Your task to perform on an android device: check data usage Image 0: 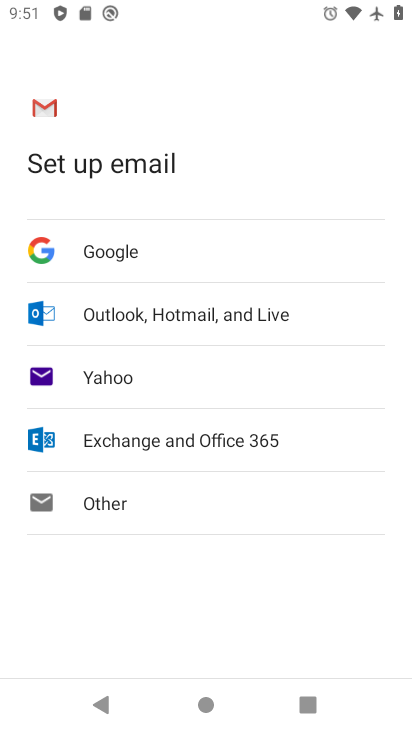
Step 0: press back button
Your task to perform on an android device: check data usage Image 1: 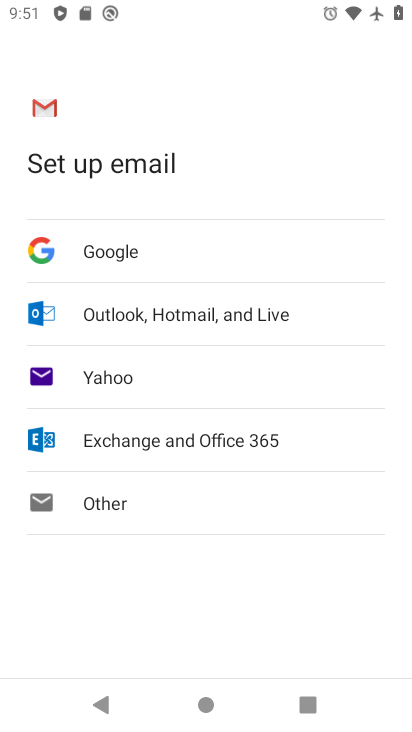
Step 1: press home button
Your task to perform on an android device: check data usage Image 2: 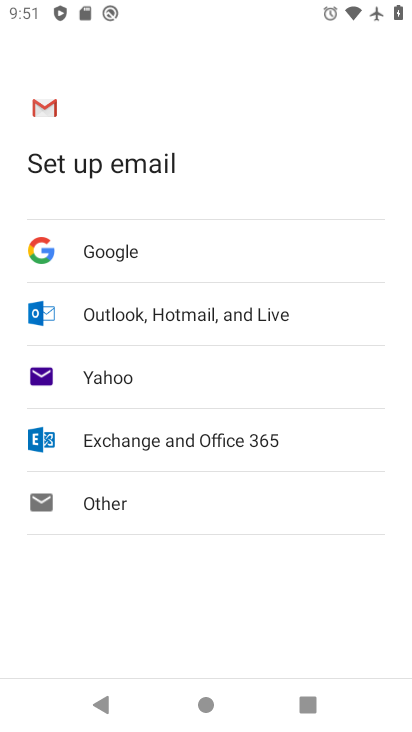
Step 2: press home button
Your task to perform on an android device: check data usage Image 3: 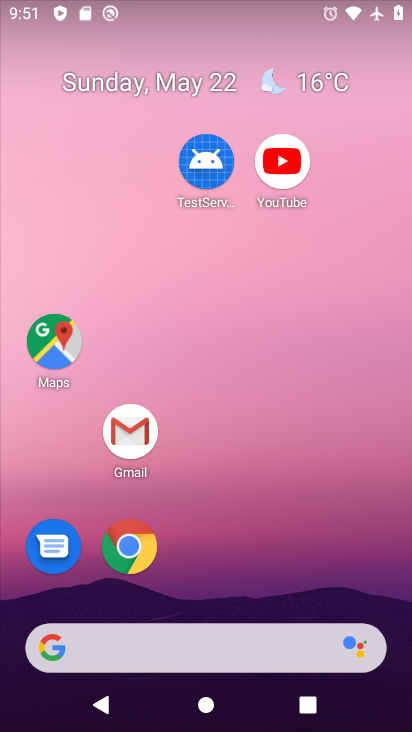
Step 3: drag from (241, 664) to (125, 154)
Your task to perform on an android device: check data usage Image 4: 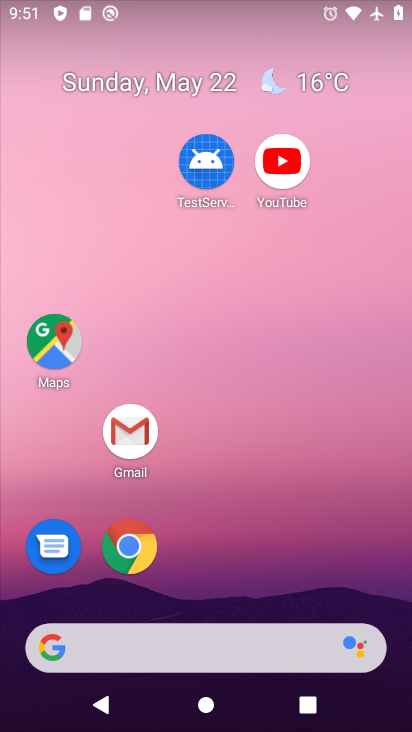
Step 4: drag from (262, 675) to (169, 26)
Your task to perform on an android device: check data usage Image 5: 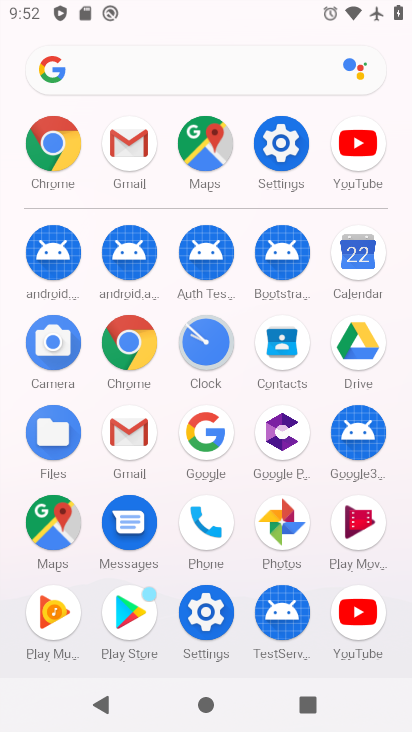
Step 5: click (282, 150)
Your task to perform on an android device: check data usage Image 6: 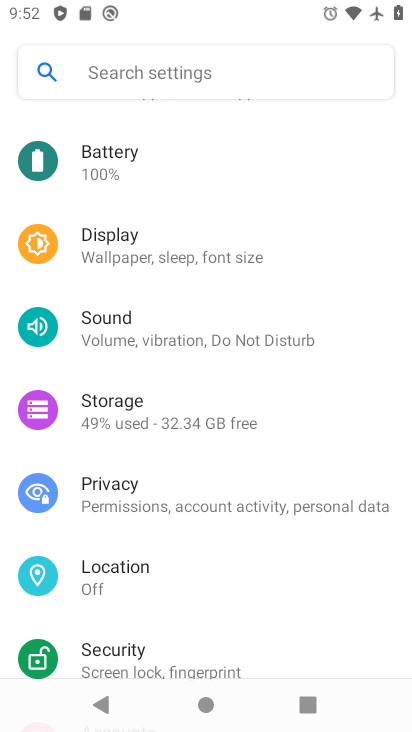
Step 6: click (151, 533)
Your task to perform on an android device: check data usage Image 7: 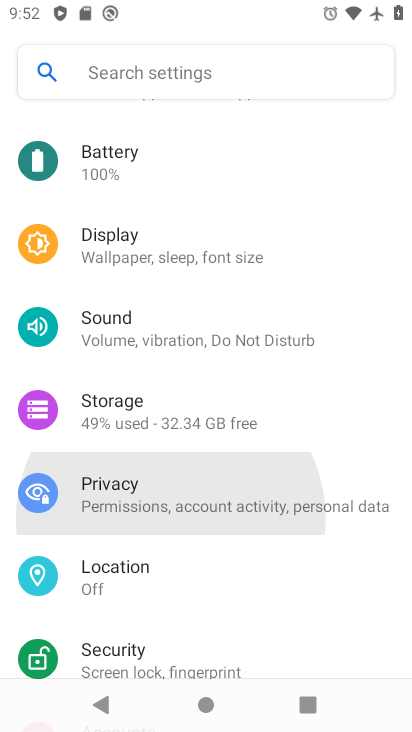
Step 7: click (210, 610)
Your task to perform on an android device: check data usage Image 8: 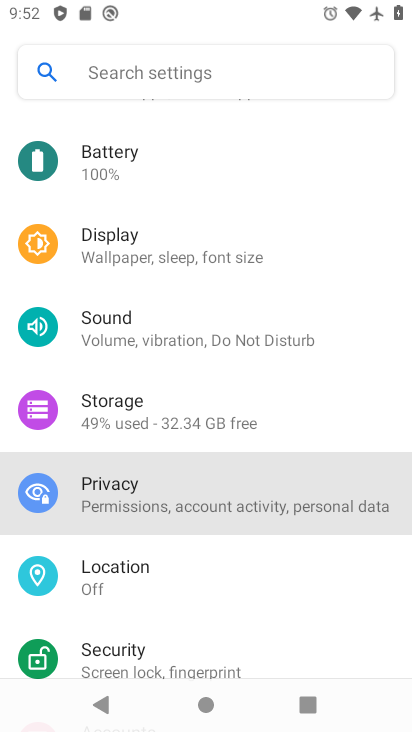
Step 8: drag from (144, 243) to (207, 619)
Your task to perform on an android device: check data usage Image 9: 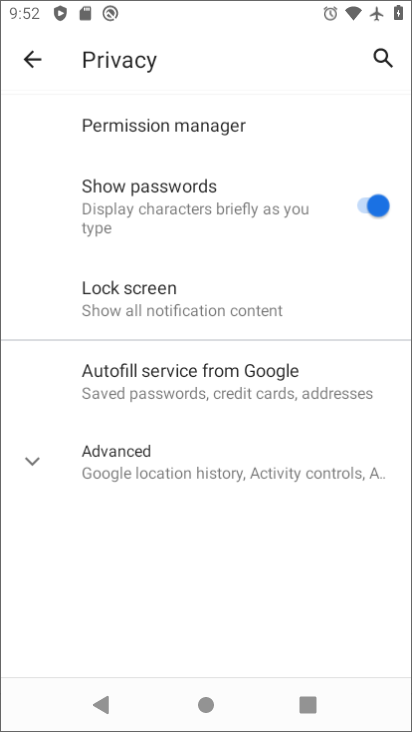
Step 9: drag from (166, 236) to (234, 629)
Your task to perform on an android device: check data usage Image 10: 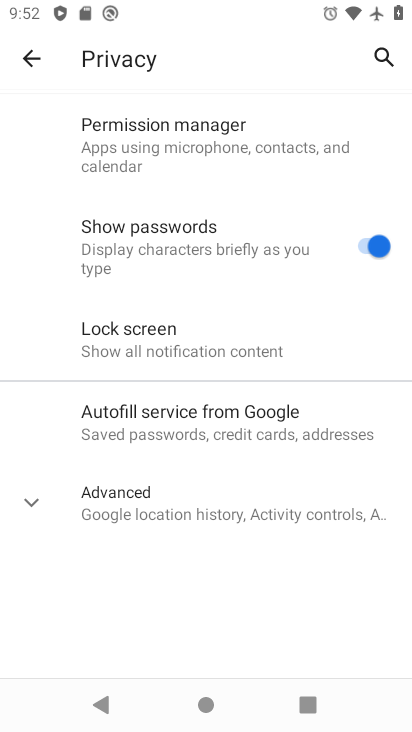
Step 10: click (20, 56)
Your task to perform on an android device: check data usage Image 11: 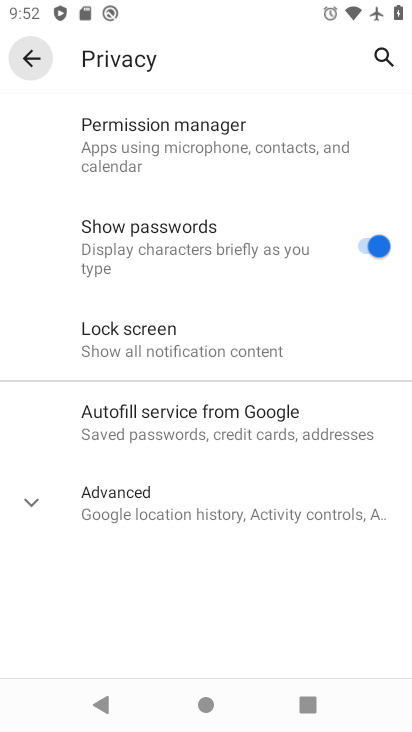
Step 11: click (22, 53)
Your task to perform on an android device: check data usage Image 12: 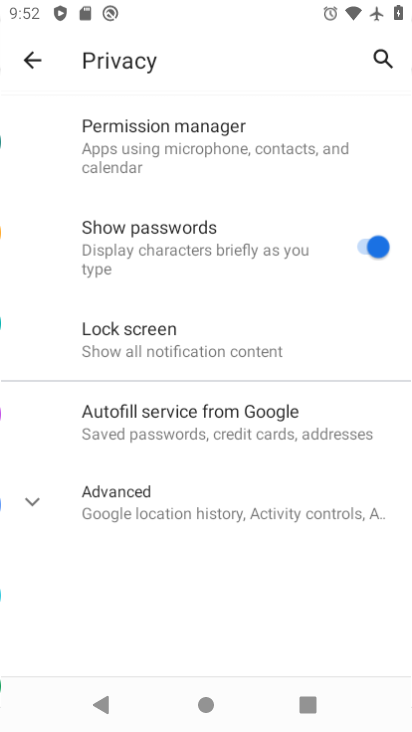
Step 12: click (28, 52)
Your task to perform on an android device: check data usage Image 13: 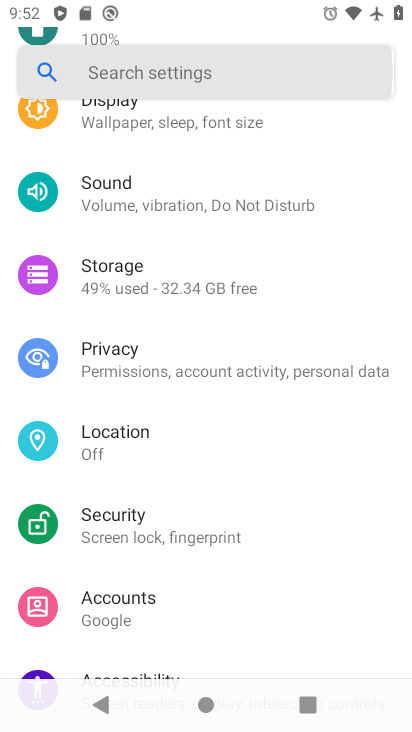
Step 13: click (28, 52)
Your task to perform on an android device: check data usage Image 14: 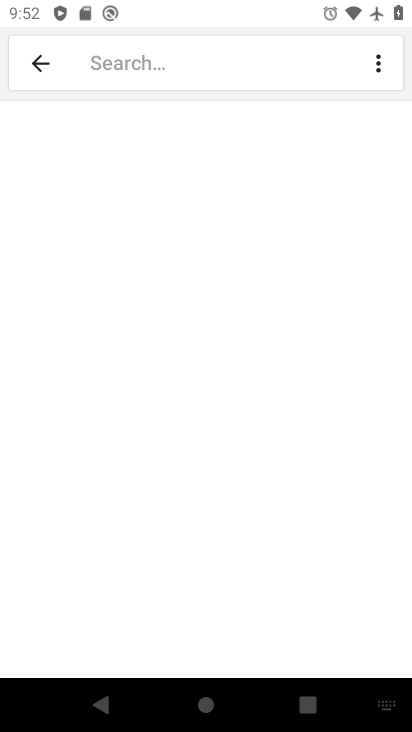
Step 14: click (41, 68)
Your task to perform on an android device: check data usage Image 15: 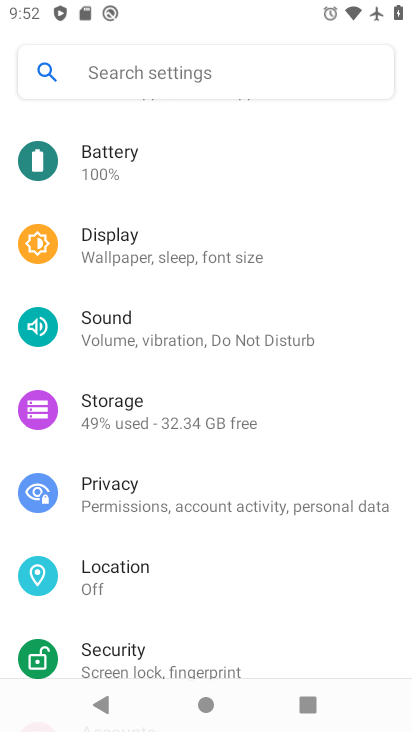
Step 15: drag from (110, 200) to (148, 608)
Your task to perform on an android device: check data usage Image 16: 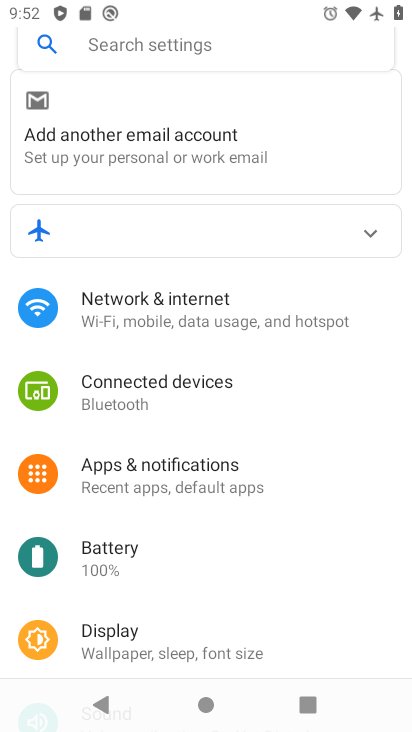
Step 16: drag from (144, 244) to (209, 636)
Your task to perform on an android device: check data usage Image 17: 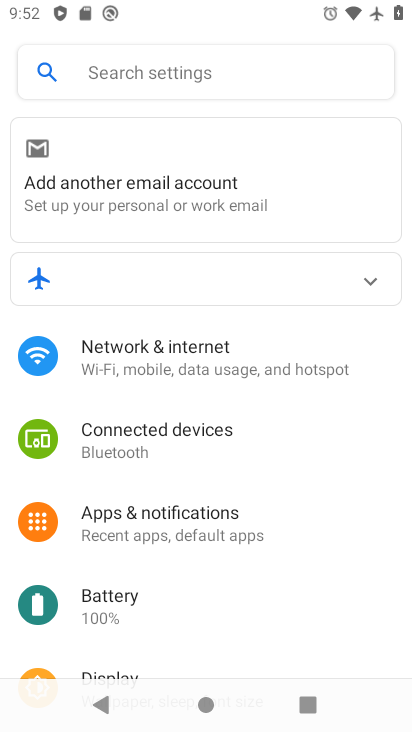
Step 17: click (191, 354)
Your task to perform on an android device: check data usage Image 18: 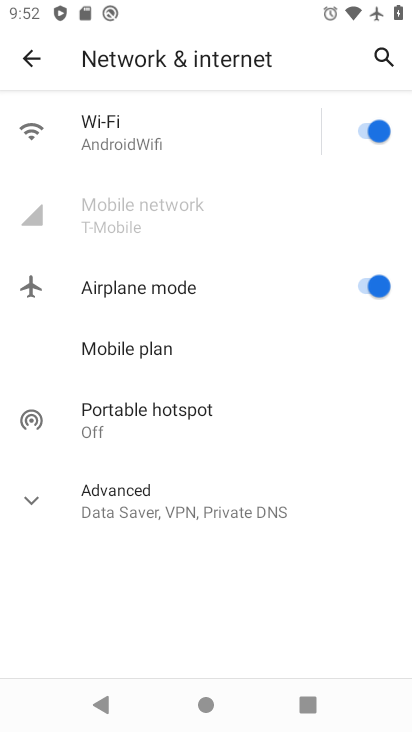
Step 18: task complete